Your task to perform on an android device: Show me popular videos on Youtube Image 0: 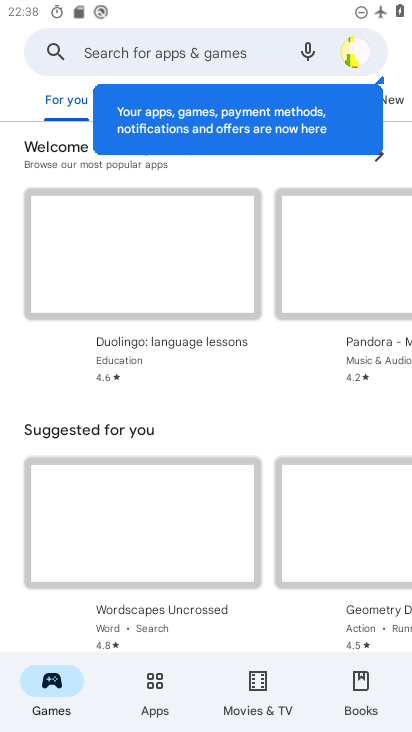
Step 0: press home button
Your task to perform on an android device: Show me popular videos on Youtube Image 1: 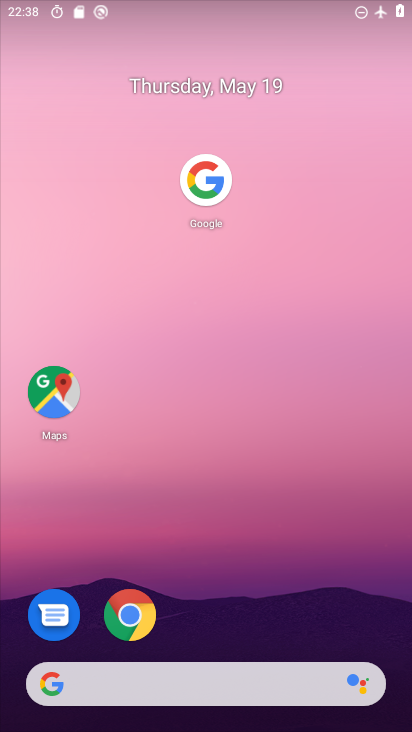
Step 1: drag from (240, 581) to (278, 86)
Your task to perform on an android device: Show me popular videos on Youtube Image 2: 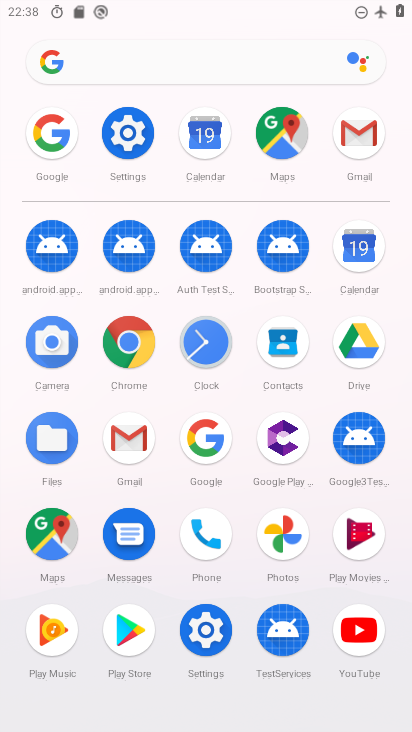
Step 2: click (377, 616)
Your task to perform on an android device: Show me popular videos on Youtube Image 3: 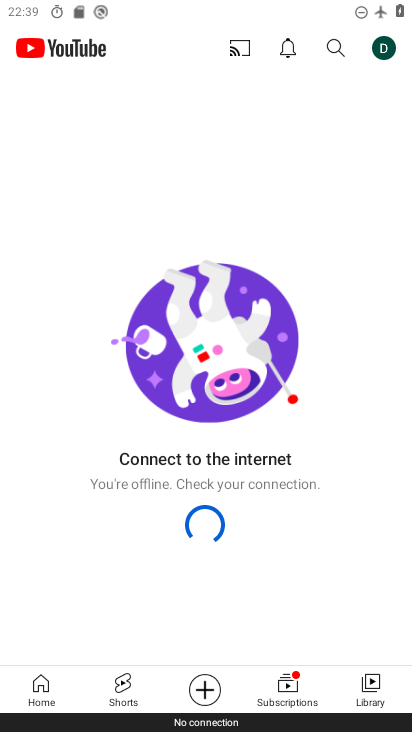
Step 3: click (21, 697)
Your task to perform on an android device: Show me popular videos on Youtube Image 4: 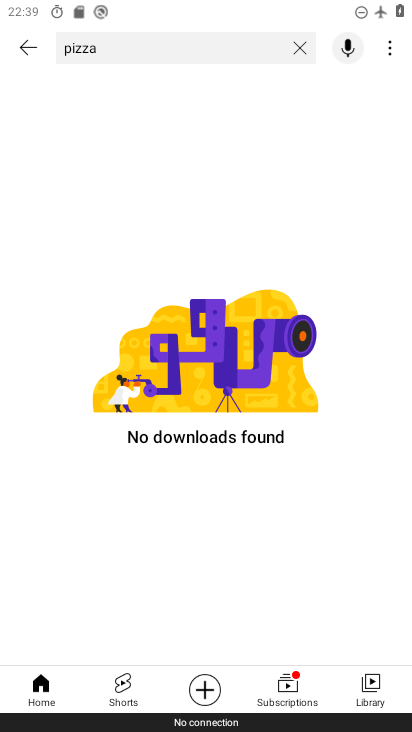
Step 4: press home button
Your task to perform on an android device: Show me popular videos on Youtube Image 5: 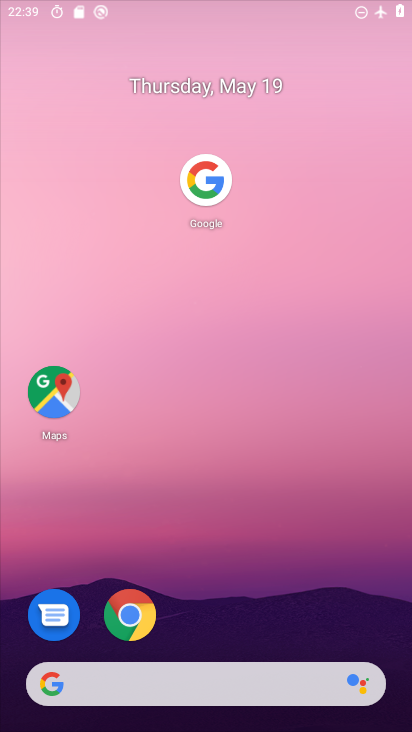
Step 5: drag from (251, 600) to (277, 71)
Your task to perform on an android device: Show me popular videos on Youtube Image 6: 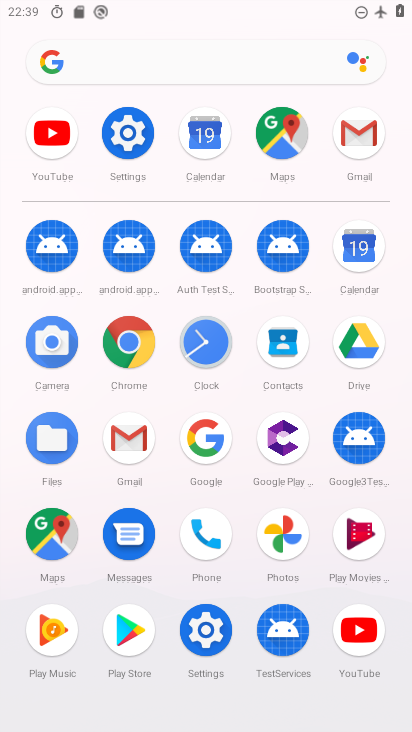
Step 6: click (120, 126)
Your task to perform on an android device: Show me popular videos on Youtube Image 7: 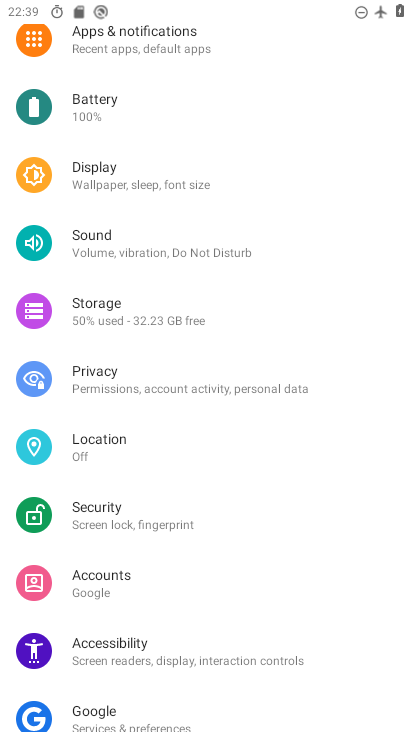
Step 7: drag from (169, 122) to (201, 521)
Your task to perform on an android device: Show me popular videos on Youtube Image 8: 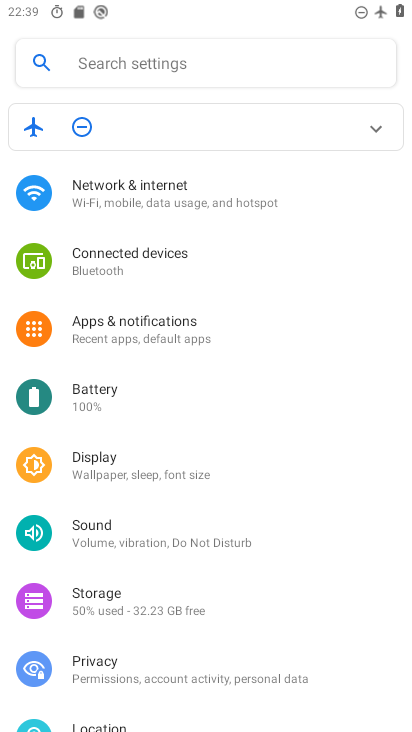
Step 8: click (157, 203)
Your task to perform on an android device: Show me popular videos on Youtube Image 9: 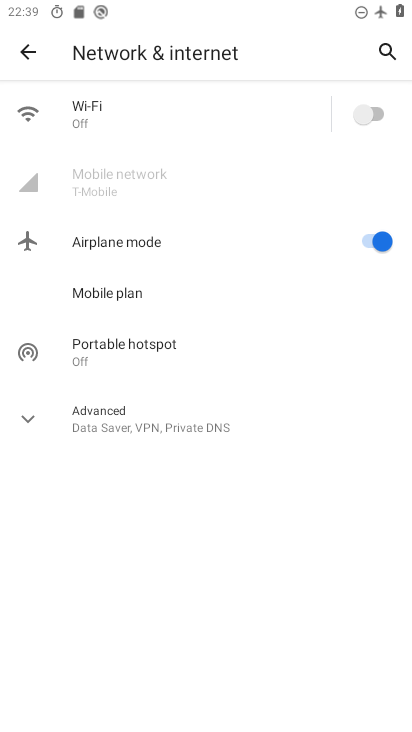
Step 9: click (372, 234)
Your task to perform on an android device: Show me popular videos on Youtube Image 10: 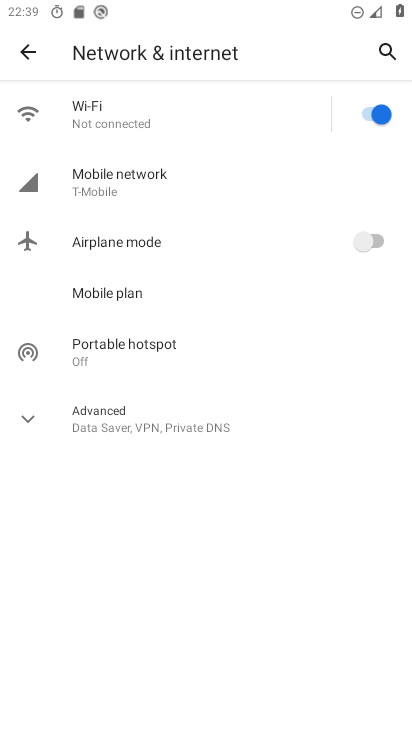
Step 10: click (364, 111)
Your task to perform on an android device: Show me popular videos on Youtube Image 11: 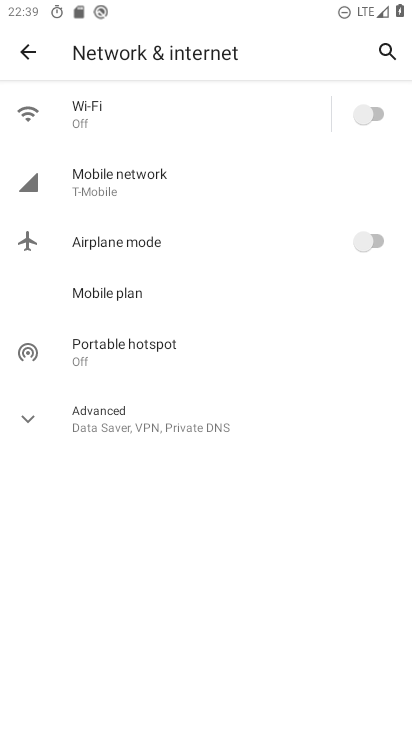
Step 11: click (364, 111)
Your task to perform on an android device: Show me popular videos on Youtube Image 12: 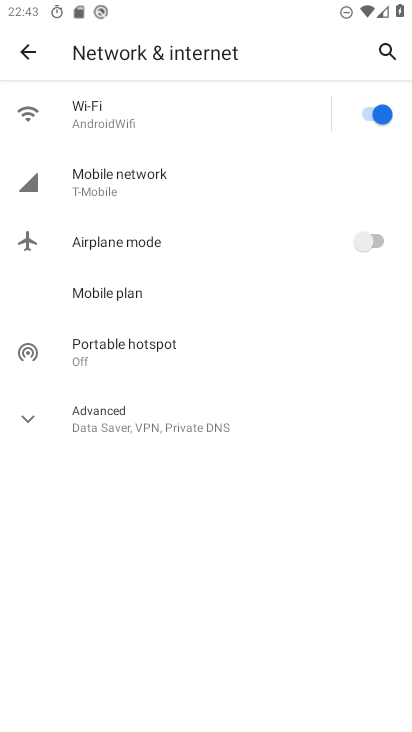
Step 12: press home button
Your task to perform on an android device: Show me popular videos on Youtube Image 13: 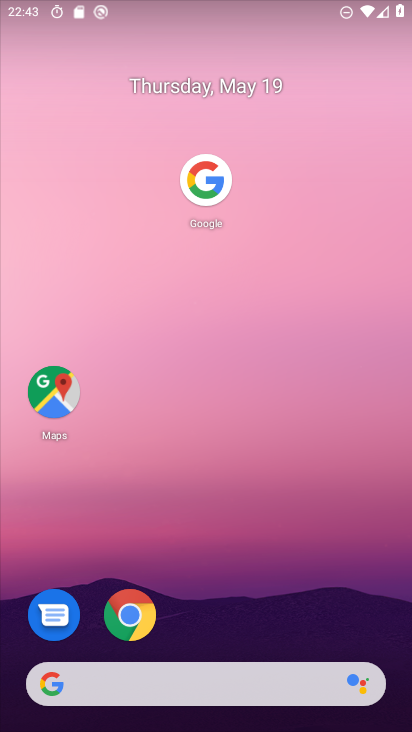
Step 13: drag from (264, 398) to (287, 3)
Your task to perform on an android device: Show me popular videos on Youtube Image 14: 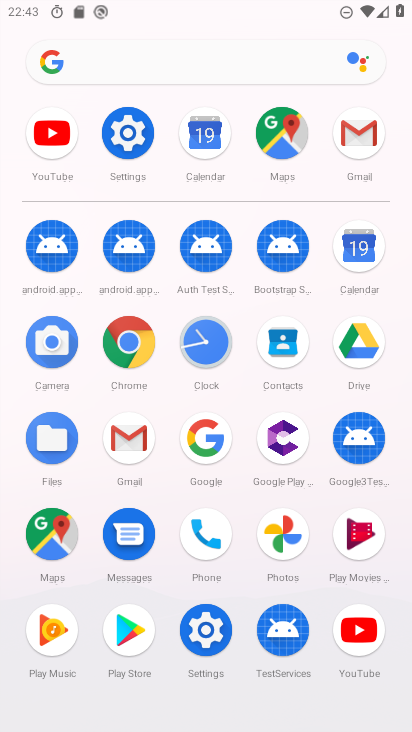
Step 14: click (351, 631)
Your task to perform on an android device: Show me popular videos on Youtube Image 15: 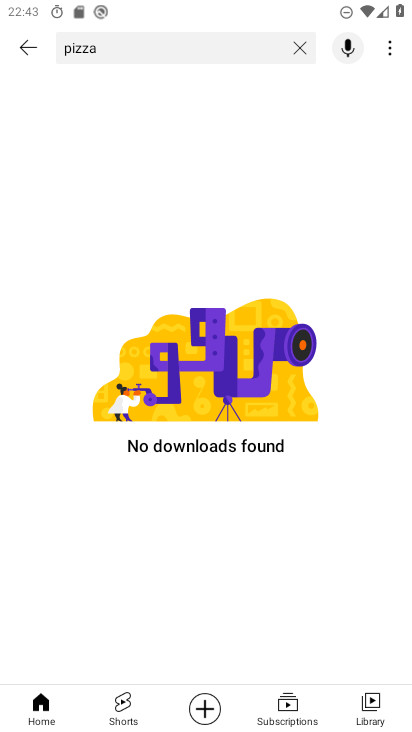
Step 15: click (301, 39)
Your task to perform on an android device: Show me popular videos on Youtube Image 16: 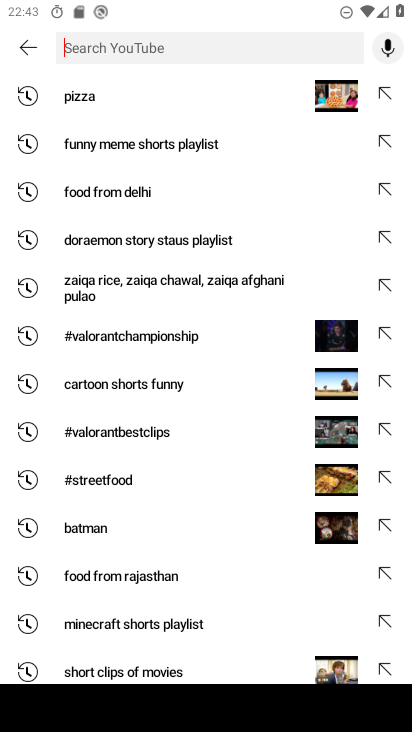
Step 16: task complete